Your task to perform on an android device: Open Amazon Image 0: 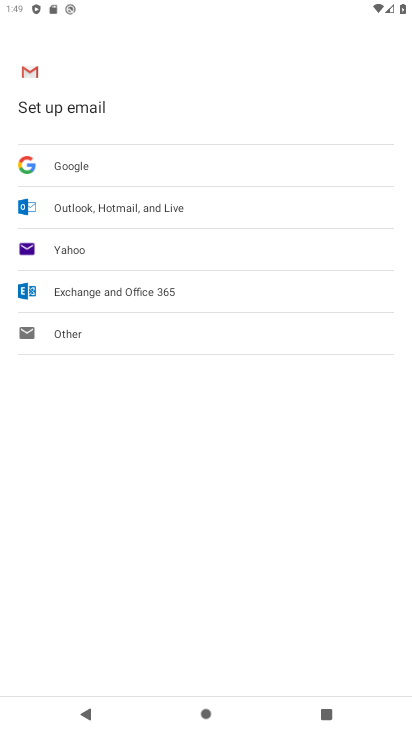
Step 0: press back button
Your task to perform on an android device: Open Amazon Image 1: 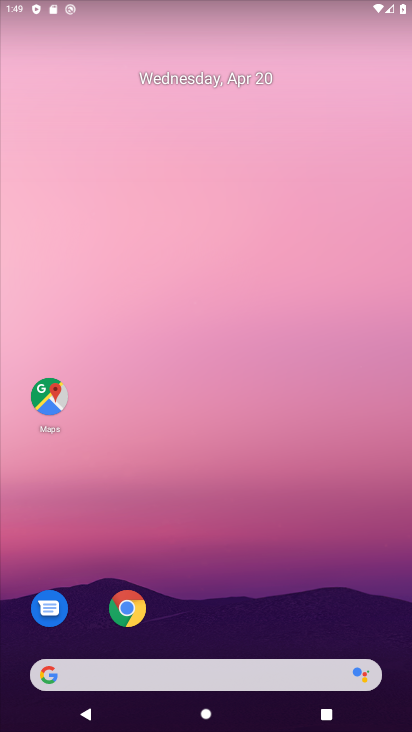
Step 1: click (37, 411)
Your task to perform on an android device: Open Amazon Image 2: 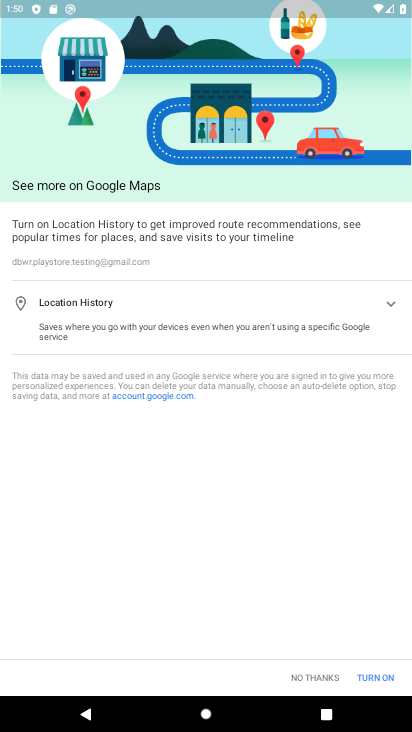
Step 2: press back button
Your task to perform on an android device: Open Amazon Image 3: 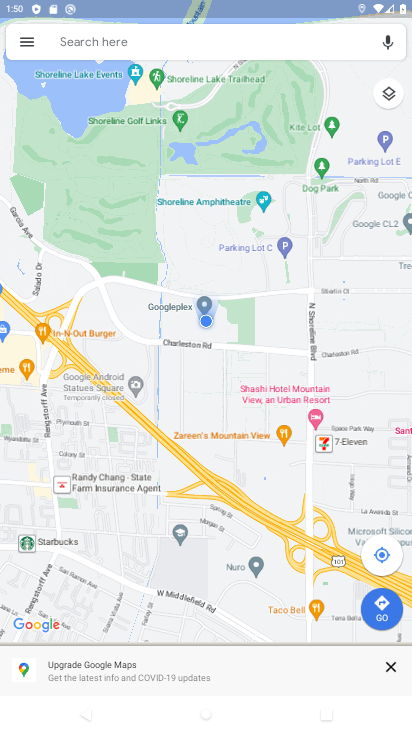
Step 3: press back button
Your task to perform on an android device: Open Amazon Image 4: 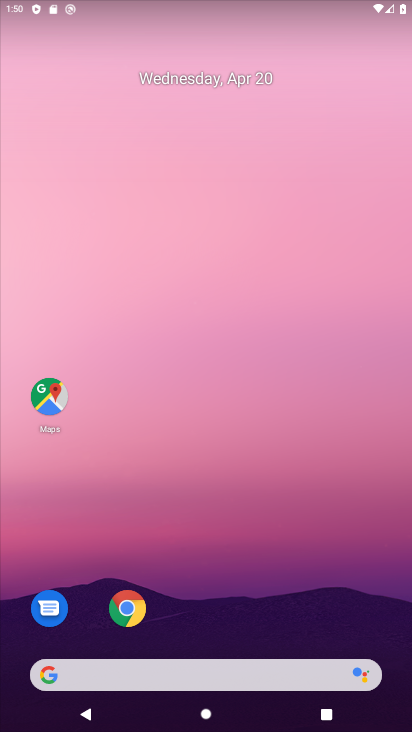
Step 4: click (128, 604)
Your task to perform on an android device: Open Amazon Image 5: 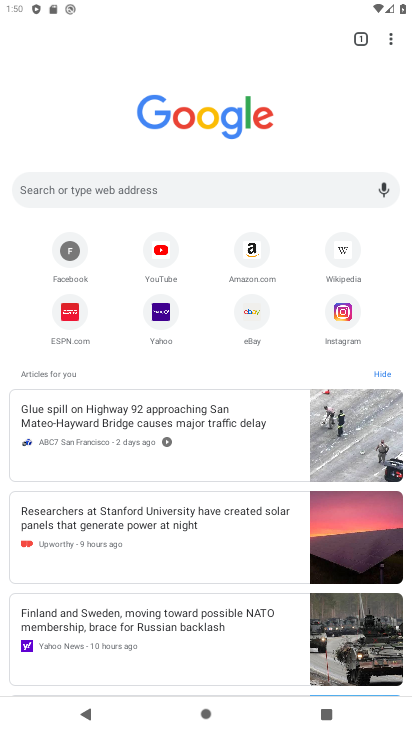
Step 5: click (251, 266)
Your task to perform on an android device: Open Amazon Image 6: 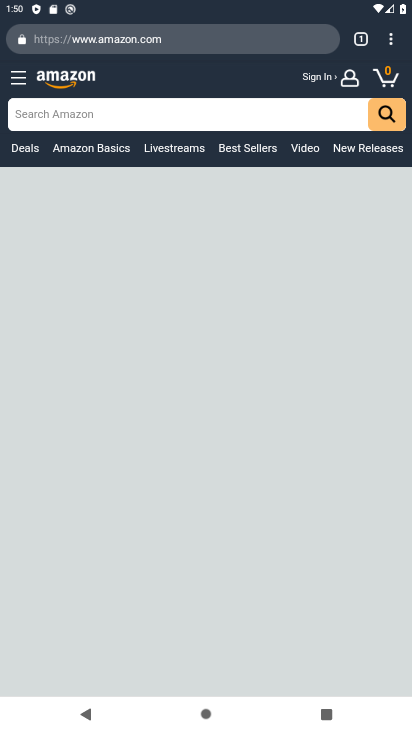
Step 6: task complete